Your task to perform on an android device: change your default location settings in chrome Image 0: 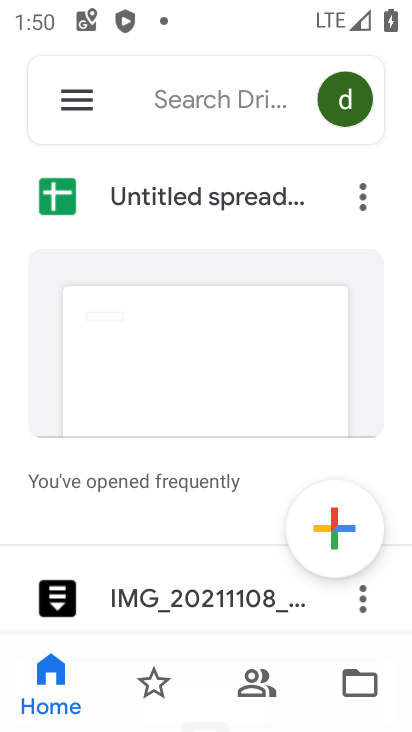
Step 0: press home button
Your task to perform on an android device: change your default location settings in chrome Image 1: 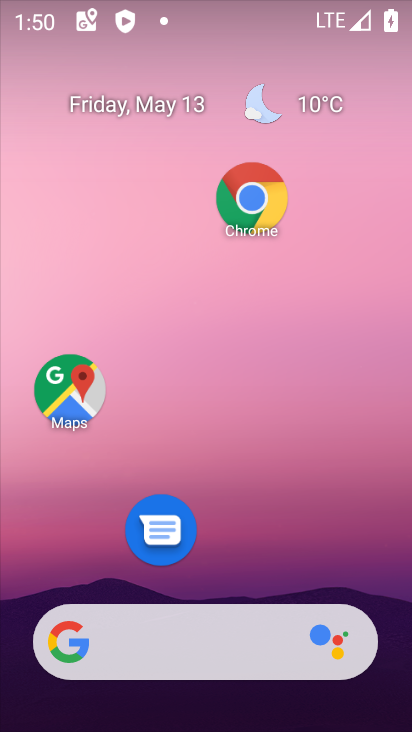
Step 1: click (259, 190)
Your task to perform on an android device: change your default location settings in chrome Image 2: 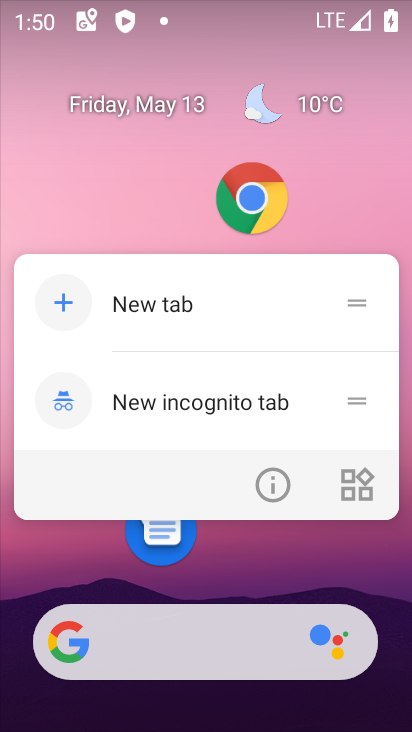
Step 2: click (260, 194)
Your task to perform on an android device: change your default location settings in chrome Image 3: 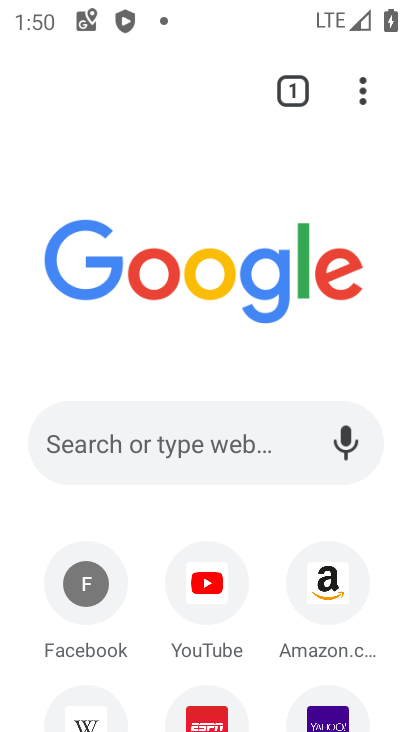
Step 3: click (353, 92)
Your task to perform on an android device: change your default location settings in chrome Image 4: 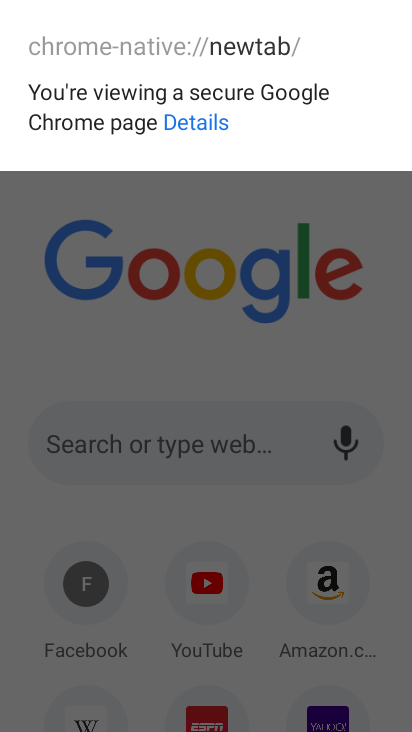
Step 4: click (371, 219)
Your task to perform on an android device: change your default location settings in chrome Image 5: 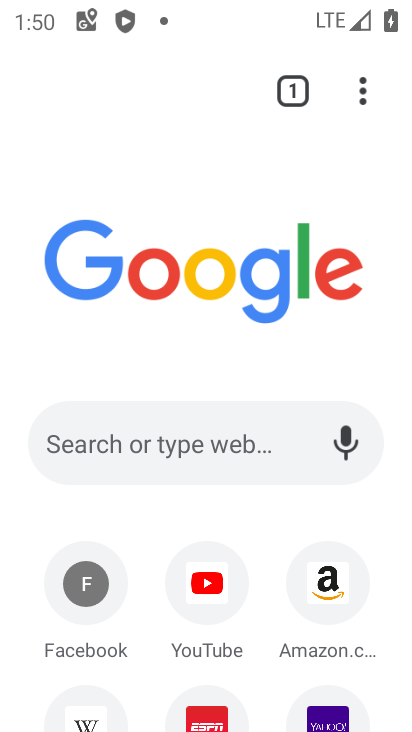
Step 5: click (364, 99)
Your task to perform on an android device: change your default location settings in chrome Image 6: 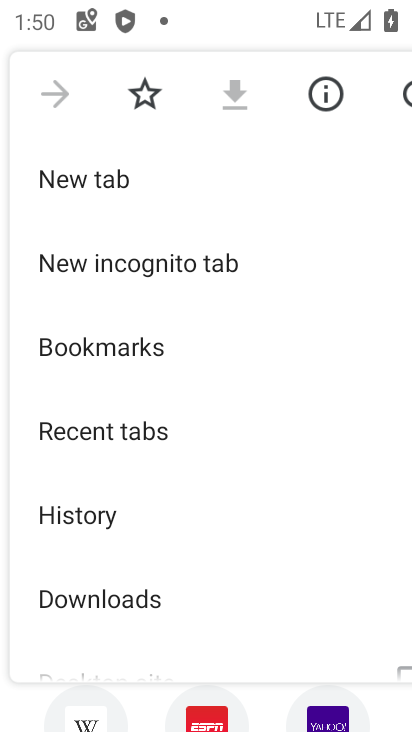
Step 6: drag from (191, 488) to (151, 107)
Your task to perform on an android device: change your default location settings in chrome Image 7: 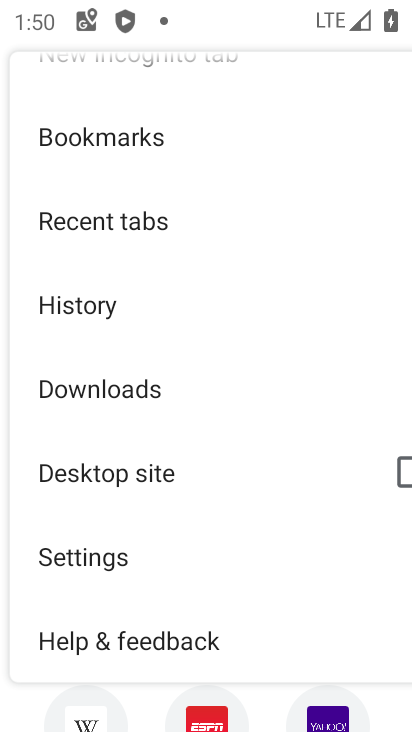
Step 7: click (70, 565)
Your task to perform on an android device: change your default location settings in chrome Image 8: 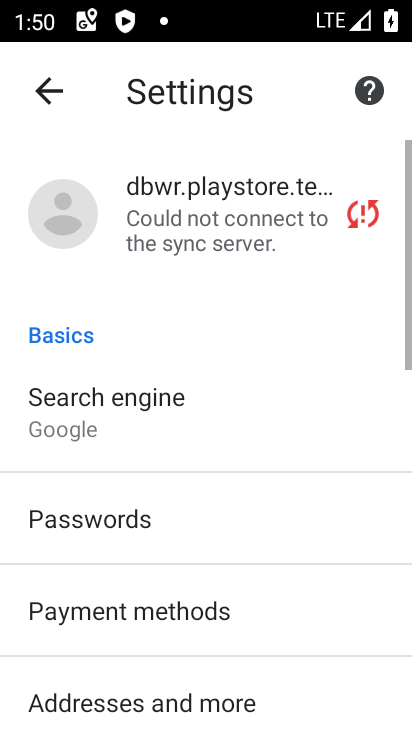
Step 8: drag from (146, 623) to (132, 234)
Your task to perform on an android device: change your default location settings in chrome Image 9: 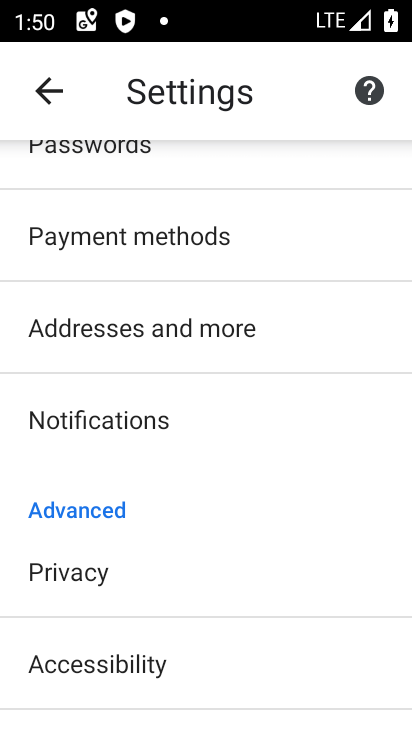
Step 9: drag from (345, 615) to (326, 52)
Your task to perform on an android device: change your default location settings in chrome Image 10: 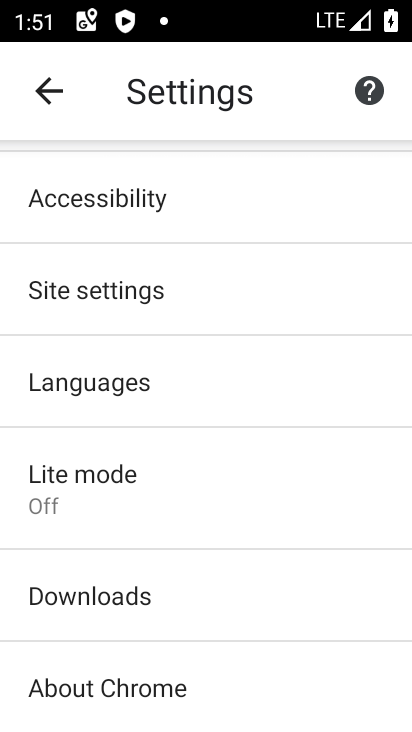
Step 10: click (71, 282)
Your task to perform on an android device: change your default location settings in chrome Image 11: 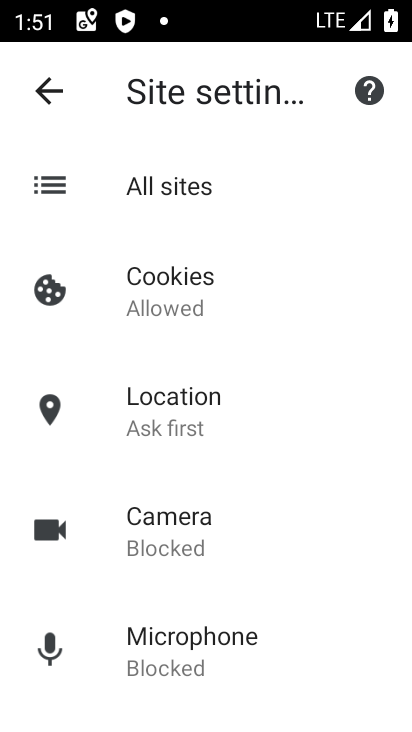
Step 11: drag from (209, 593) to (194, 314)
Your task to perform on an android device: change your default location settings in chrome Image 12: 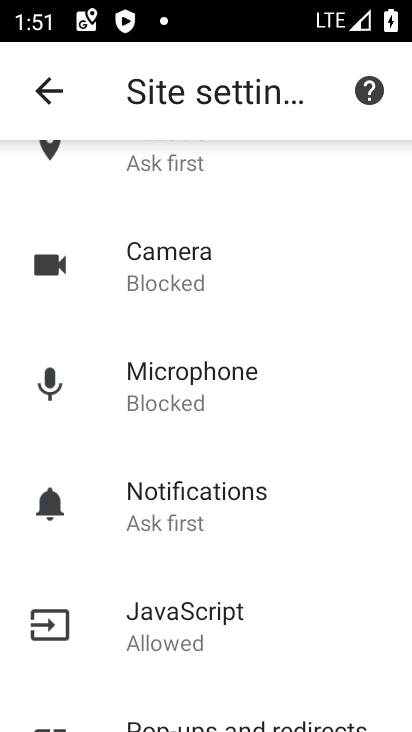
Step 12: click (204, 167)
Your task to perform on an android device: change your default location settings in chrome Image 13: 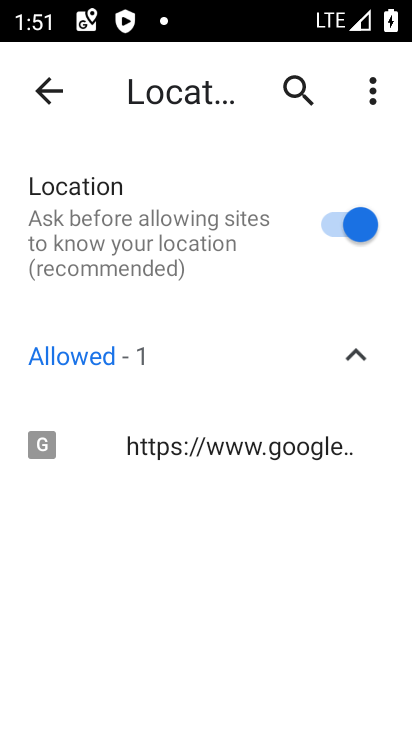
Step 13: click (349, 236)
Your task to perform on an android device: change your default location settings in chrome Image 14: 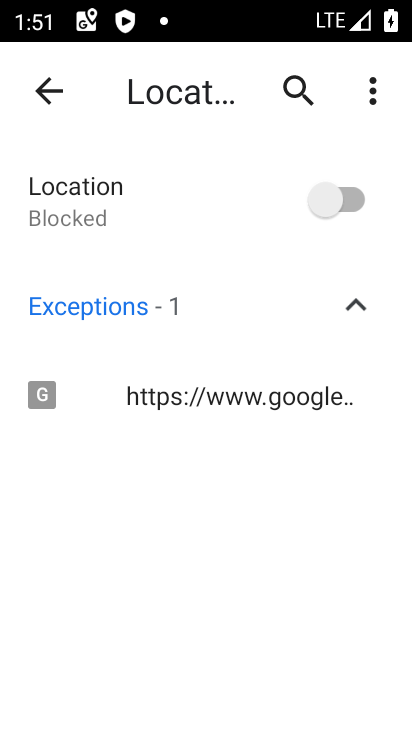
Step 14: task complete